Your task to perform on an android device: remove spam from my inbox in the gmail app Image 0: 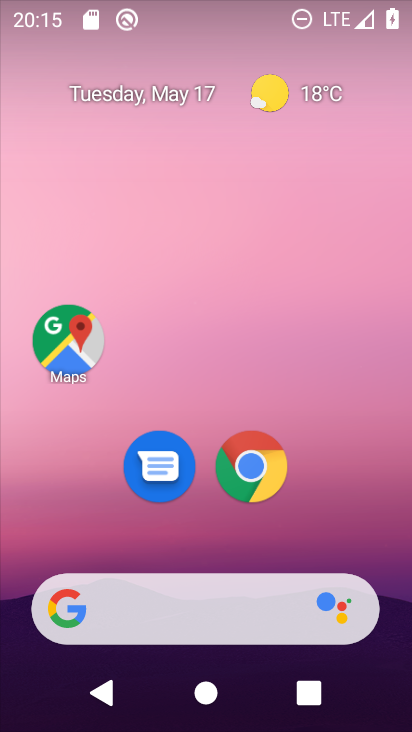
Step 0: press home button
Your task to perform on an android device: remove spam from my inbox in the gmail app Image 1: 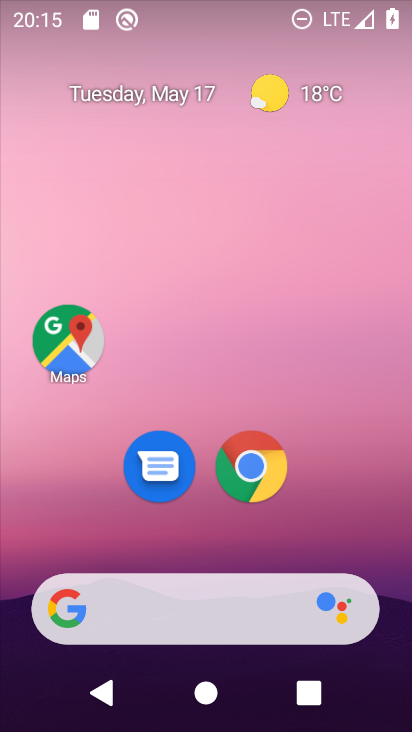
Step 1: drag from (187, 601) to (277, 166)
Your task to perform on an android device: remove spam from my inbox in the gmail app Image 2: 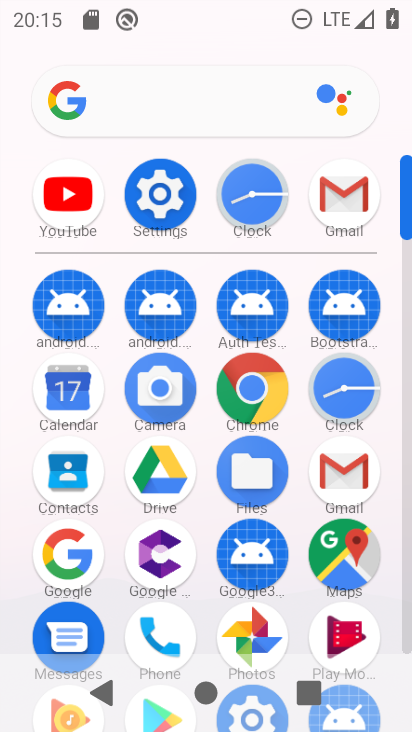
Step 2: click (361, 208)
Your task to perform on an android device: remove spam from my inbox in the gmail app Image 3: 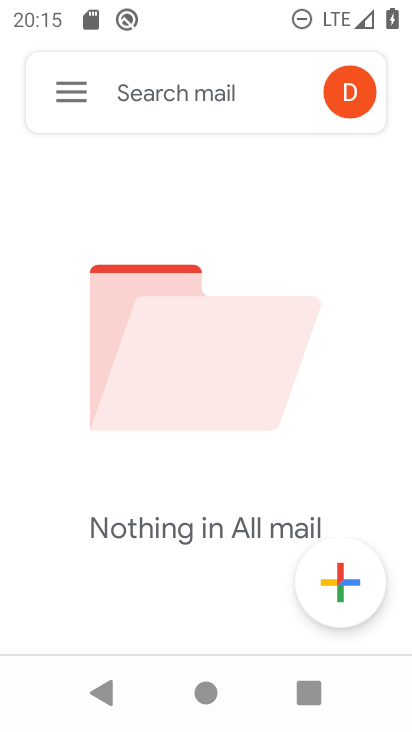
Step 3: click (72, 102)
Your task to perform on an android device: remove spam from my inbox in the gmail app Image 4: 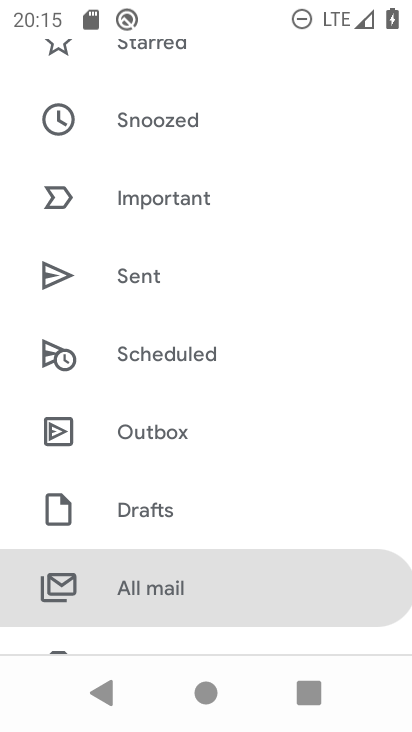
Step 4: drag from (219, 511) to (335, 126)
Your task to perform on an android device: remove spam from my inbox in the gmail app Image 5: 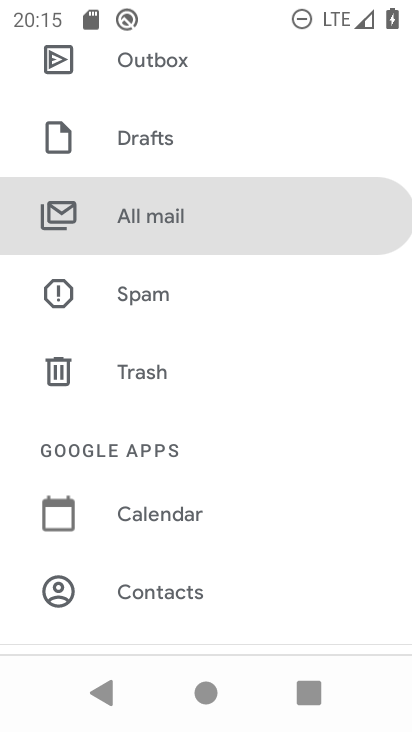
Step 5: click (148, 297)
Your task to perform on an android device: remove spam from my inbox in the gmail app Image 6: 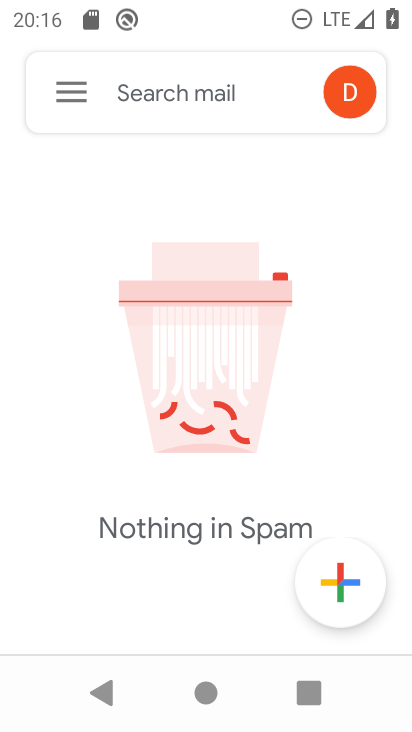
Step 6: task complete